Your task to perform on an android device: Open Google Chrome Image 0: 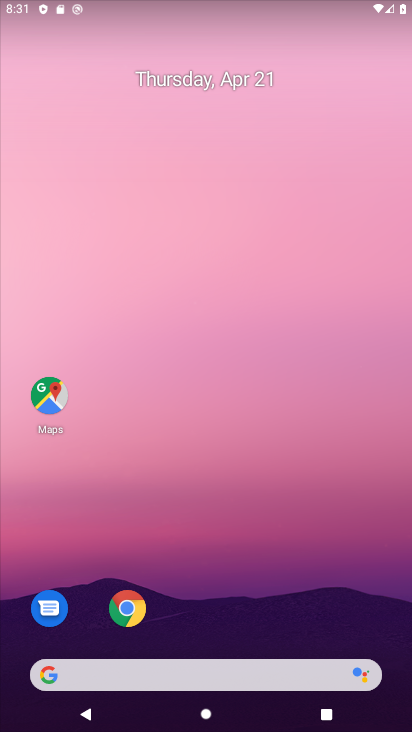
Step 0: drag from (234, 616) to (209, 36)
Your task to perform on an android device: Open Google Chrome Image 1: 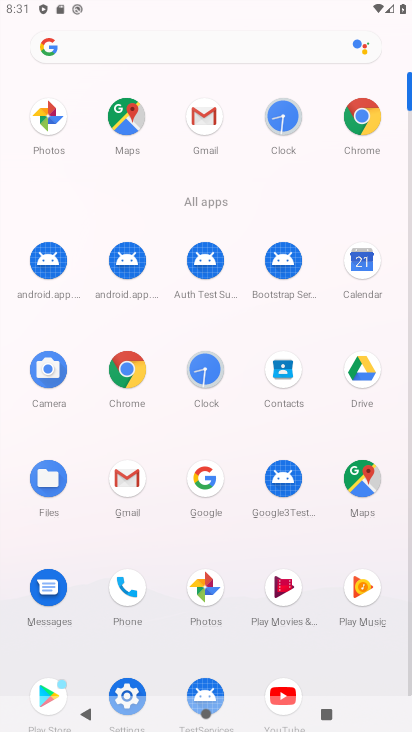
Step 1: click (380, 119)
Your task to perform on an android device: Open Google Chrome Image 2: 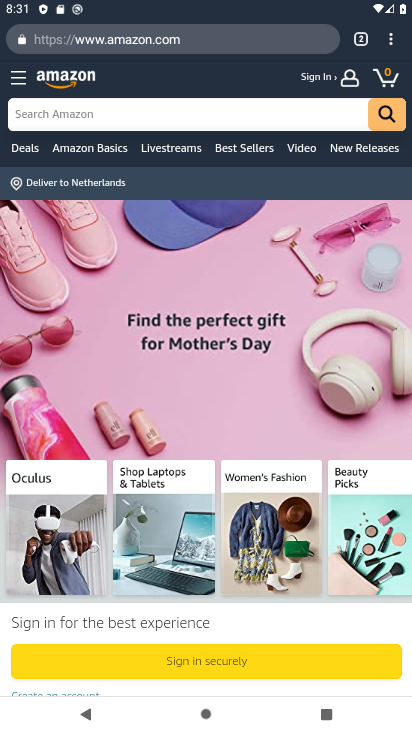
Step 2: task complete